Your task to perform on an android device: toggle pop-ups in chrome Image 0: 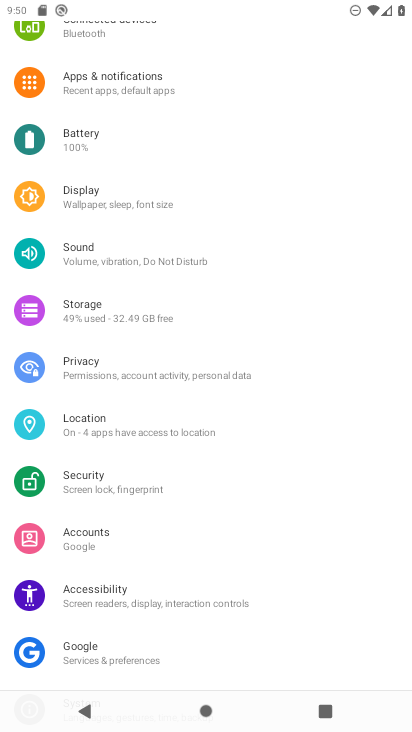
Step 0: press home button
Your task to perform on an android device: toggle pop-ups in chrome Image 1: 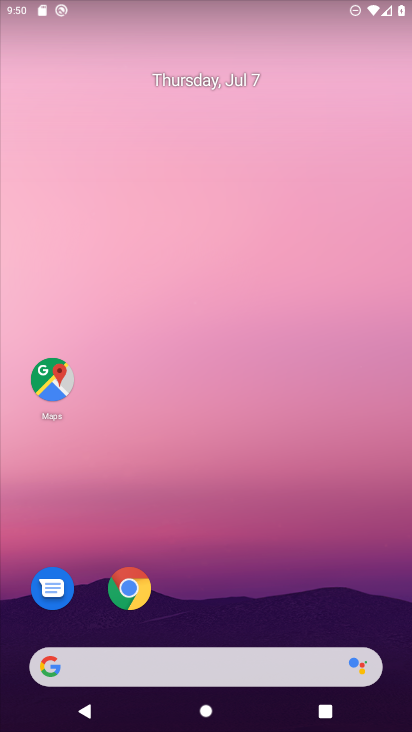
Step 1: click (129, 581)
Your task to perform on an android device: toggle pop-ups in chrome Image 2: 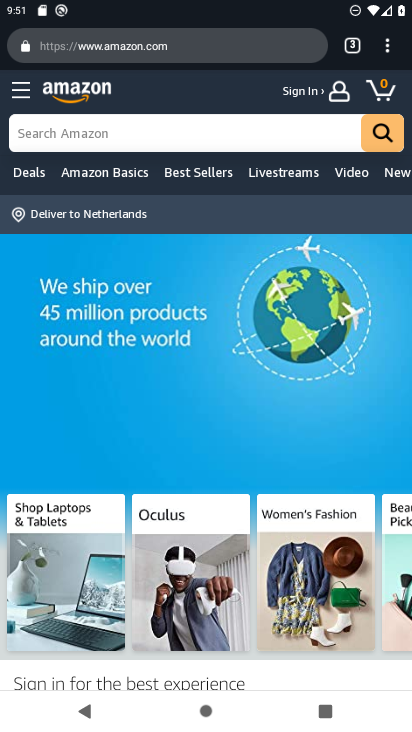
Step 2: click (401, 44)
Your task to perform on an android device: toggle pop-ups in chrome Image 3: 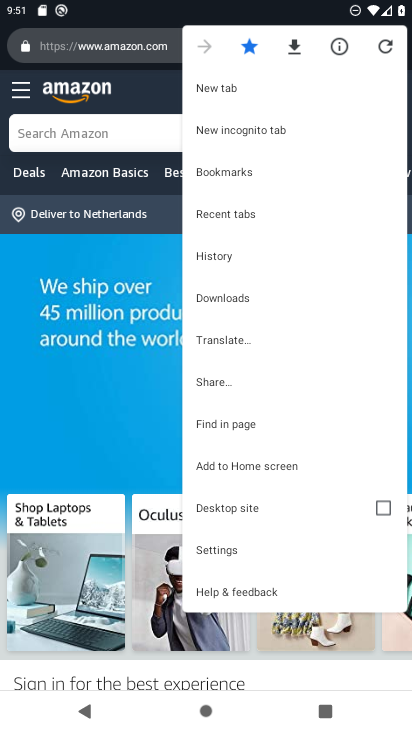
Step 3: click (244, 538)
Your task to perform on an android device: toggle pop-ups in chrome Image 4: 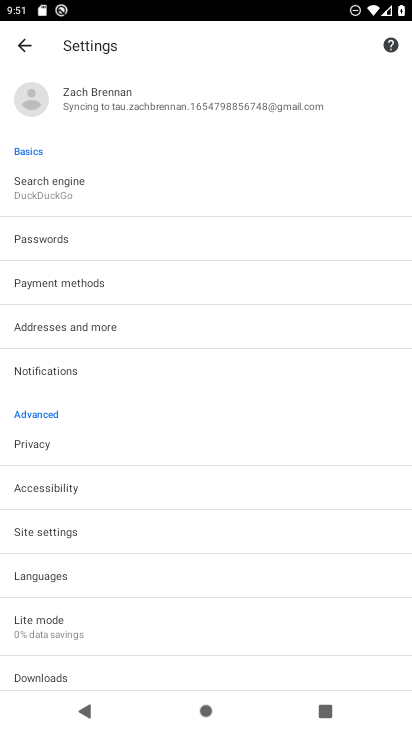
Step 4: drag from (150, 633) to (199, 269)
Your task to perform on an android device: toggle pop-ups in chrome Image 5: 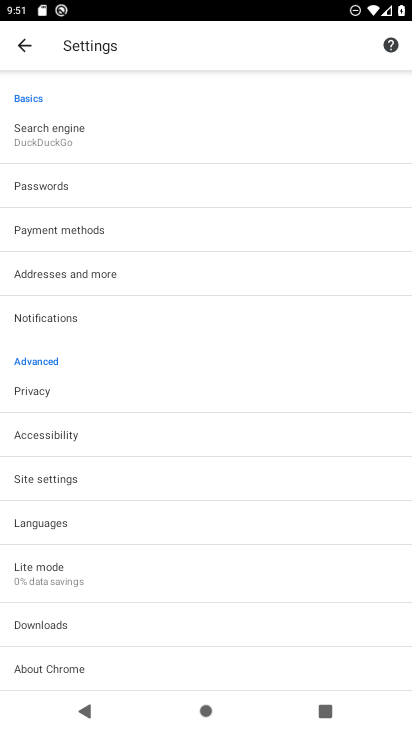
Step 5: drag from (207, 142) to (202, 540)
Your task to perform on an android device: toggle pop-ups in chrome Image 6: 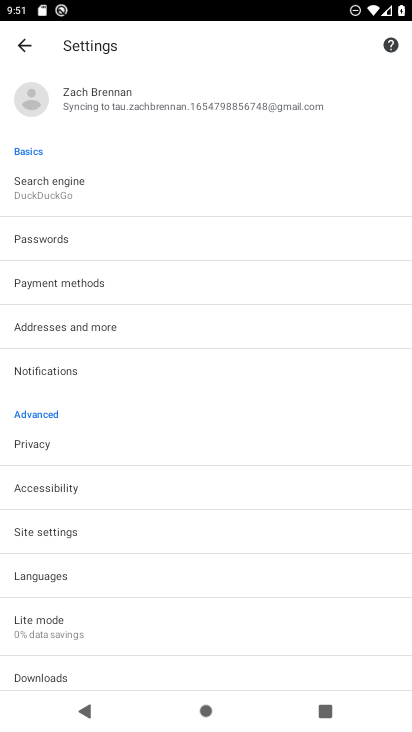
Step 6: click (105, 528)
Your task to perform on an android device: toggle pop-ups in chrome Image 7: 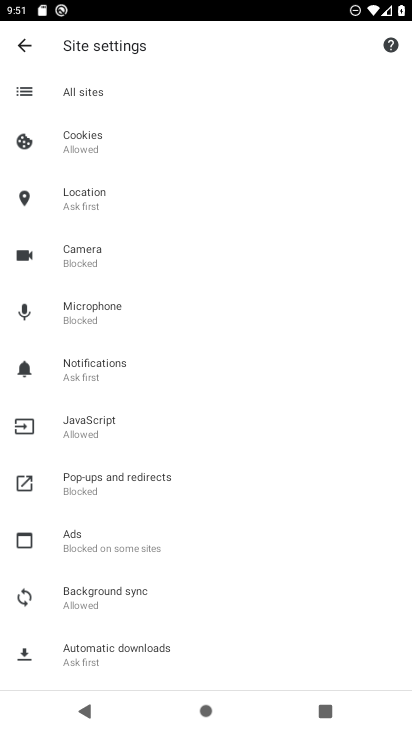
Step 7: click (108, 497)
Your task to perform on an android device: toggle pop-ups in chrome Image 8: 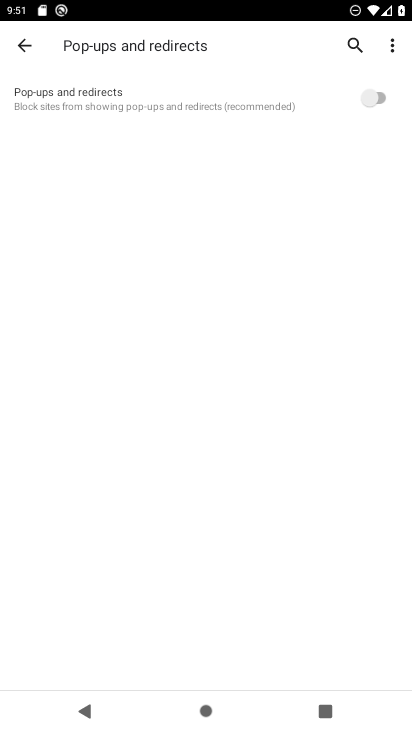
Step 8: click (382, 96)
Your task to perform on an android device: toggle pop-ups in chrome Image 9: 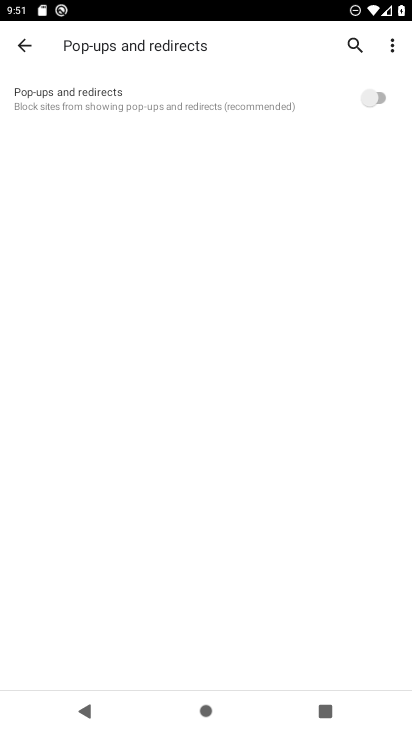
Step 9: click (382, 96)
Your task to perform on an android device: toggle pop-ups in chrome Image 10: 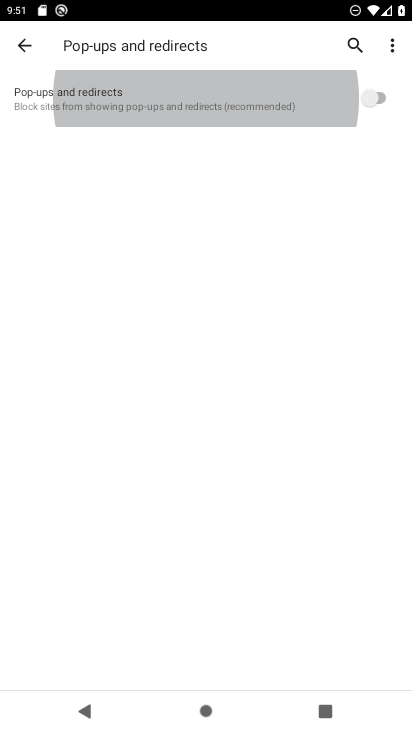
Step 10: click (382, 96)
Your task to perform on an android device: toggle pop-ups in chrome Image 11: 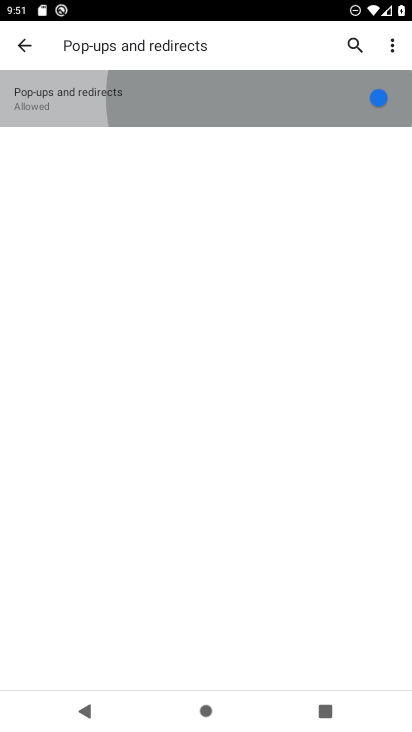
Step 11: click (382, 96)
Your task to perform on an android device: toggle pop-ups in chrome Image 12: 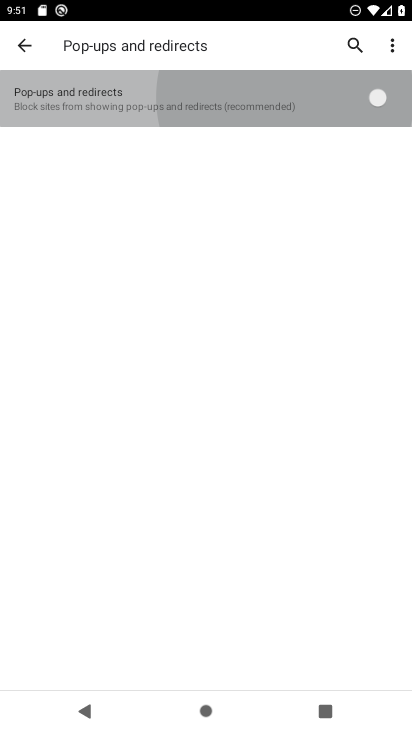
Step 12: click (382, 96)
Your task to perform on an android device: toggle pop-ups in chrome Image 13: 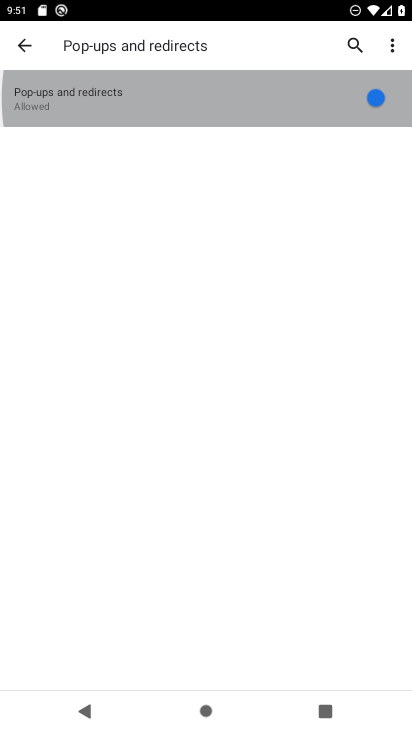
Step 13: click (382, 96)
Your task to perform on an android device: toggle pop-ups in chrome Image 14: 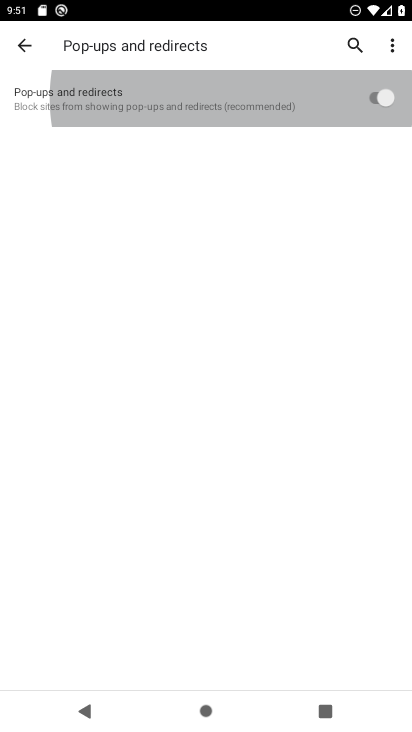
Step 14: click (382, 96)
Your task to perform on an android device: toggle pop-ups in chrome Image 15: 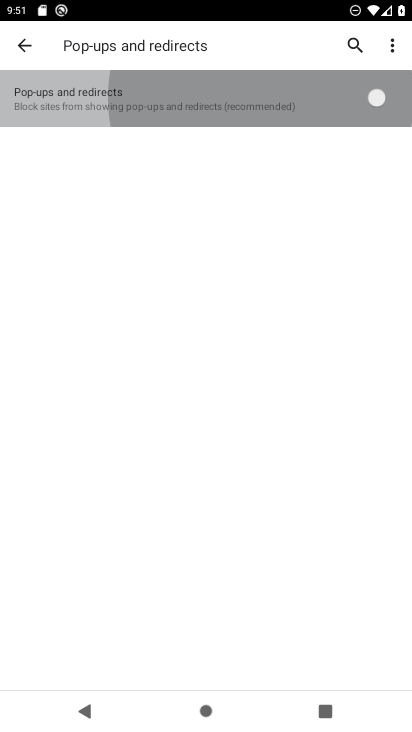
Step 15: click (382, 96)
Your task to perform on an android device: toggle pop-ups in chrome Image 16: 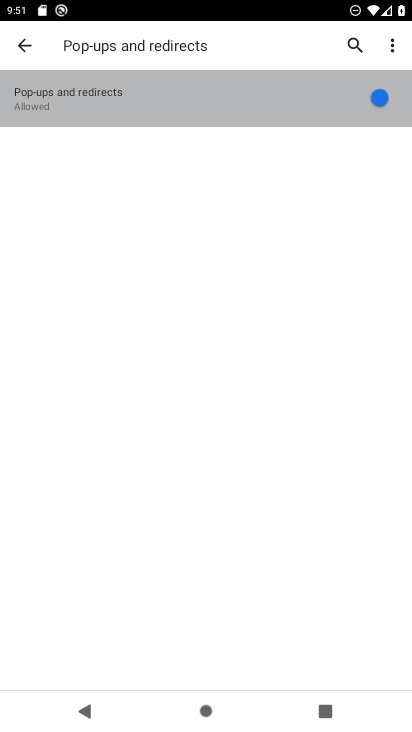
Step 16: click (382, 96)
Your task to perform on an android device: toggle pop-ups in chrome Image 17: 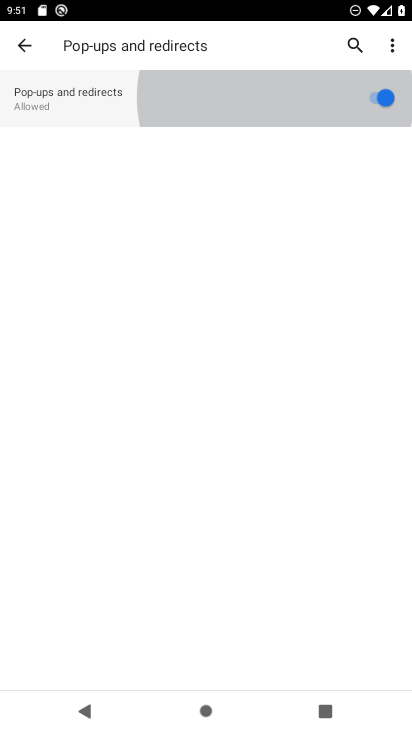
Step 17: click (382, 96)
Your task to perform on an android device: toggle pop-ups in chrome Image 18: 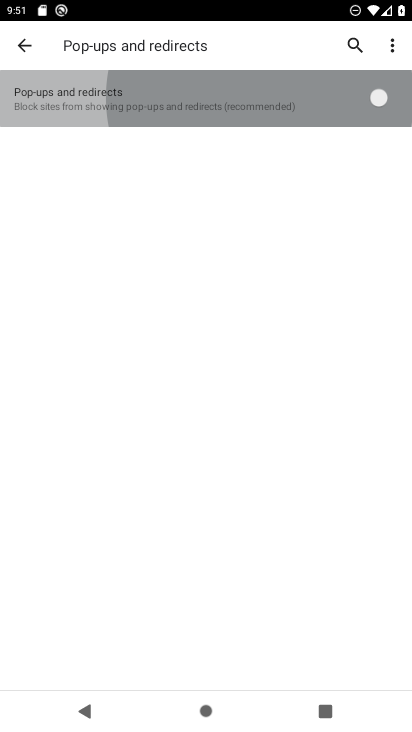
Step 18: click (382, 96)
Your task to perform on an android device: toggle pop-ups in chrome Image 19: 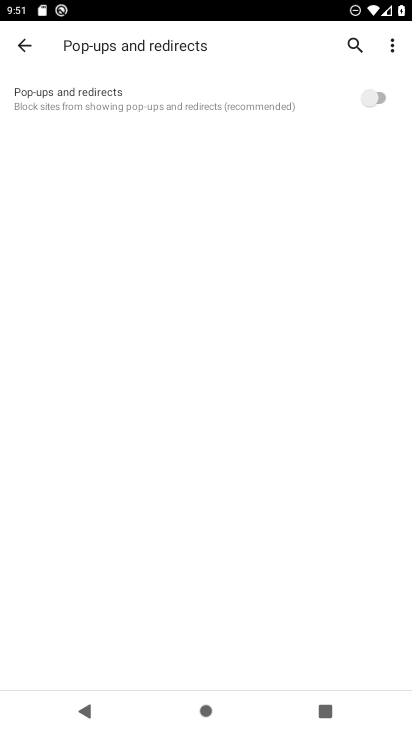
Step 19: task complete